Your task to perform on an android device: Is it going to rain tomorrow? Image 0: 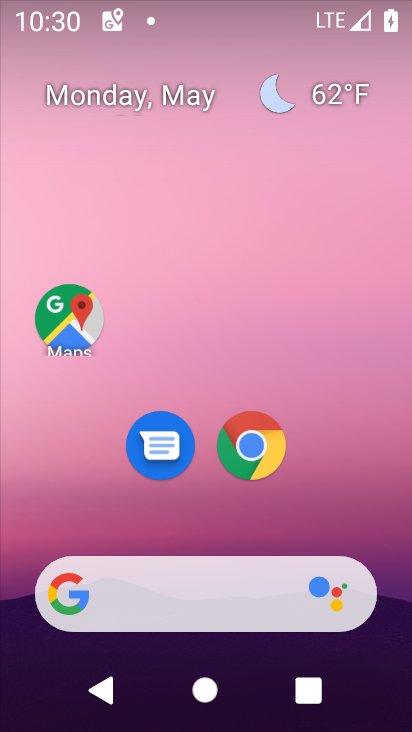
Step 0: drag from (398, 606) to (214, 79)
Your task to perform on an android device: Is it going to rain tomorrow? Image 1: 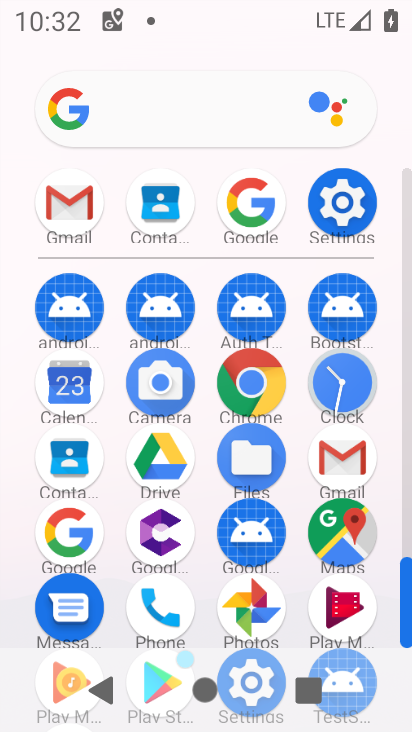
Step 1: click (243, 204)
Your task to perform on an android device: Is it going to rain tomorrow? Image 2: 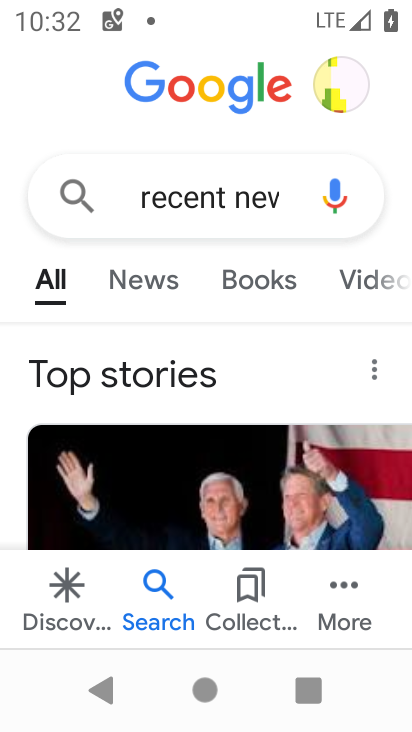
Step 2: press back button
Your task to perform on an android device: Is it going to rain tomorrow? Image 3: 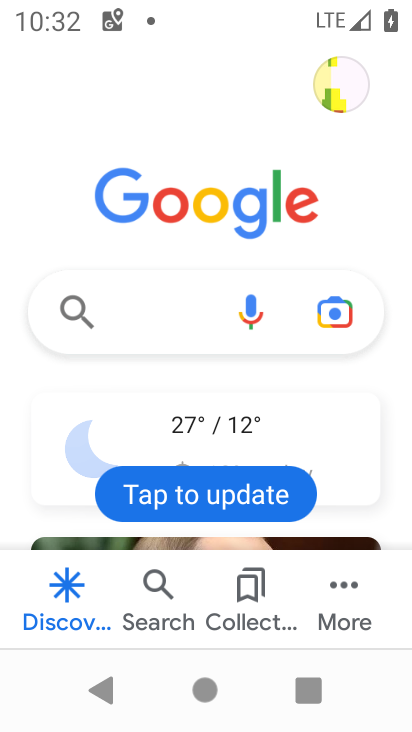
Step 3: click (163, 289)
Your task to perform on an android device: Is it going to rain tomorrow? Image 4: 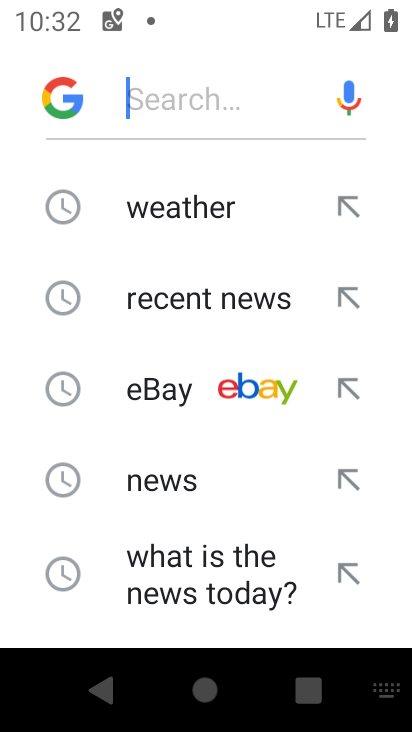
Step 4: drag from (134, 575) to (178, 195)
Your task to perform on an android device: Is it going to rain tomorrow? Image 5: 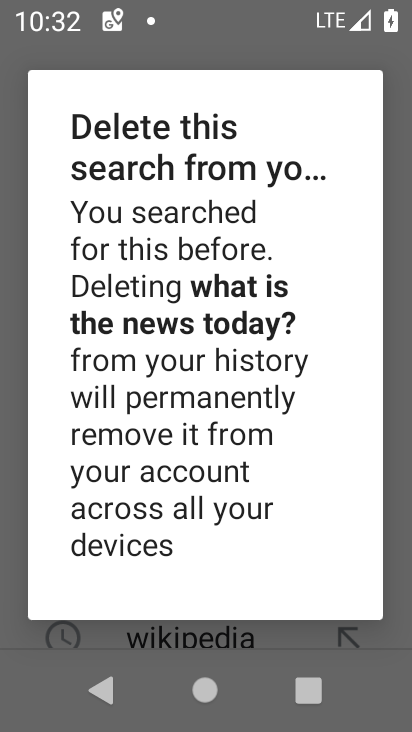
Step 5: press back button
Your task to perform on an android device: Is it going to rain tomorrow? Image 6: 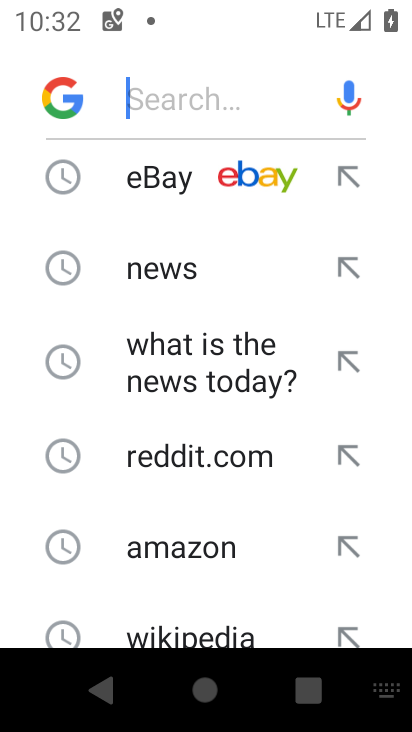
Step 6: drag from (217, 577) to (259, 242)
Your task to perform on an android device: Is it going to rain tomorrow? Image 7: 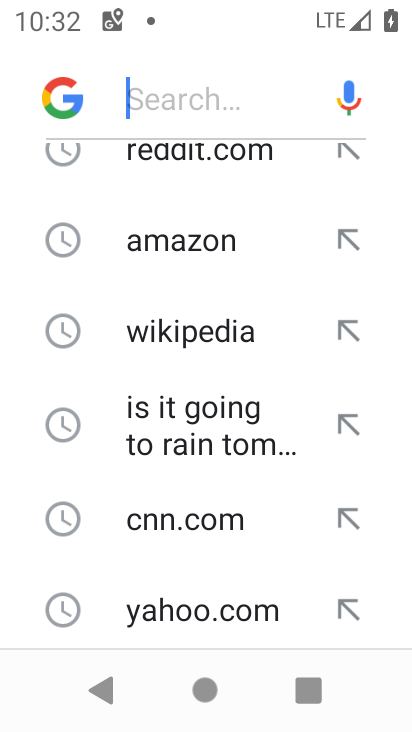
Step 7: drag from (180, 569) to (208, 196)
Your task to perform on an android device: Is it going to rain tomorrow? Image 8: 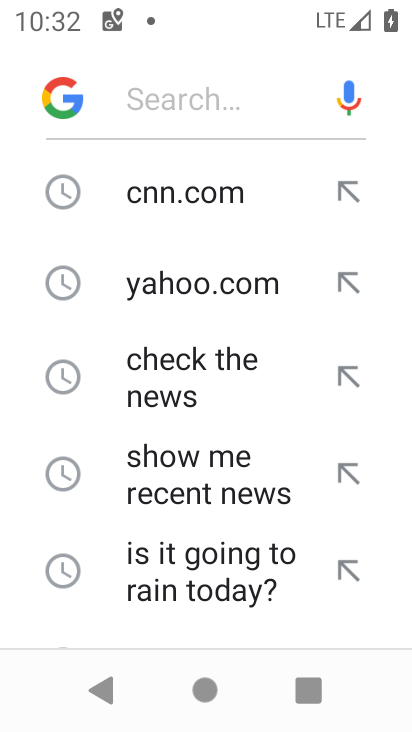
Step 8: click (193, 555)
Your task to perform on an android device: Is it going to rain tomorrow? Image 9: 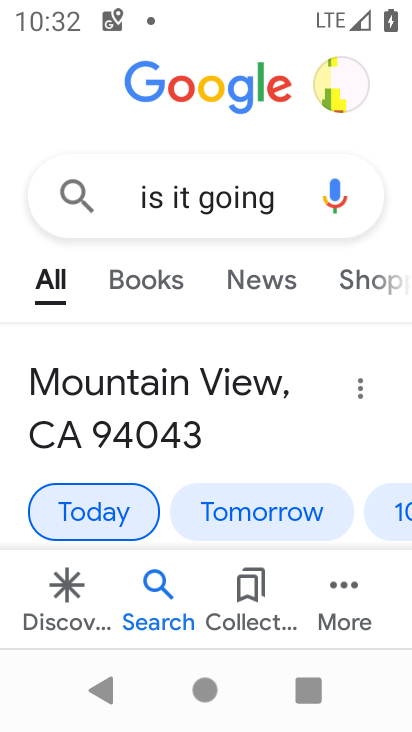
Step 9: task complete